Your task to perform on an android device: change your default location settings in chrome Image 0: 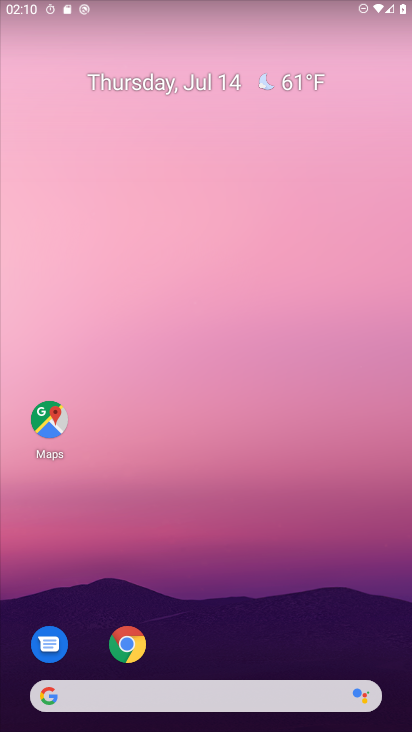
Step 0: drag from (253, 637) to (249, 218)
Your task to perform on an android device: change your default location settings in chrome Image 1: 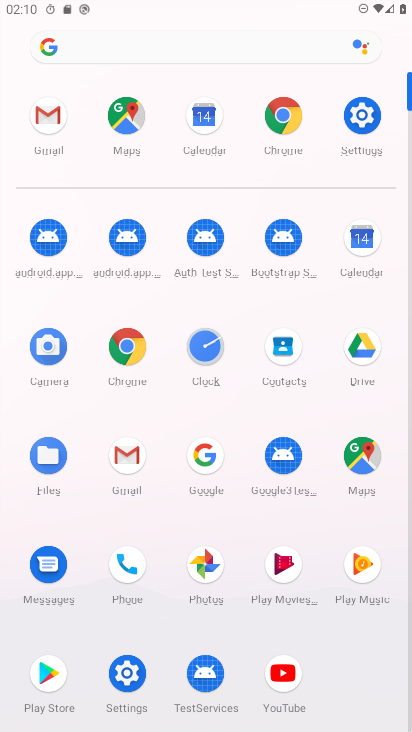
Step 1: click (124, 347)
Your task to perform on an android device: change your default location settings in chrome Image 2: 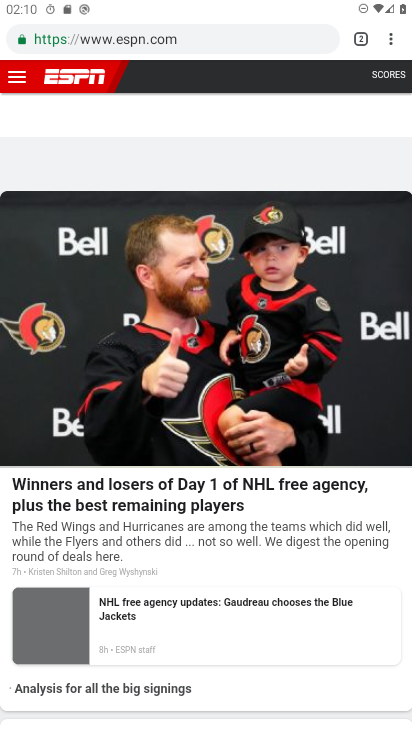
Step 2: drag from (392, 37) to (294, 465)
Your task to perform on an android device: change your default location settings in chrome Image 3: 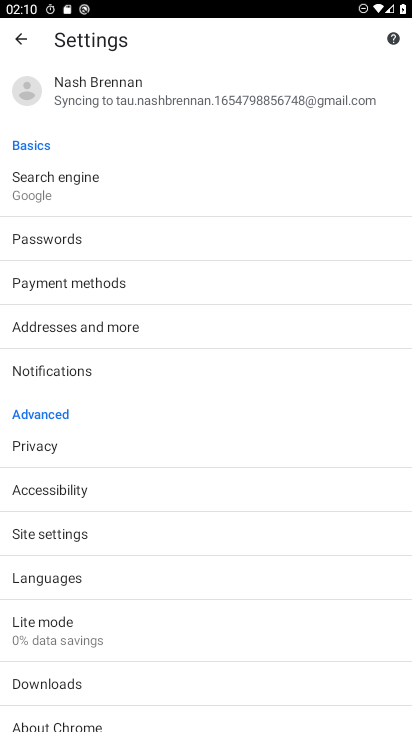
Step 3: drag from (208, 661) to (232, 427)
Your task to perform on an android device: change your default location settings in chrome Image 4: 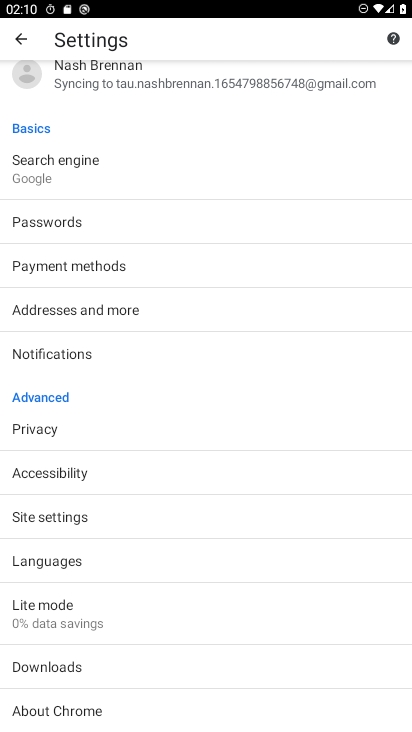
Step 4: click (71, 521)
Your task to perform on an android device: change your default location settings in chrome Image 5: 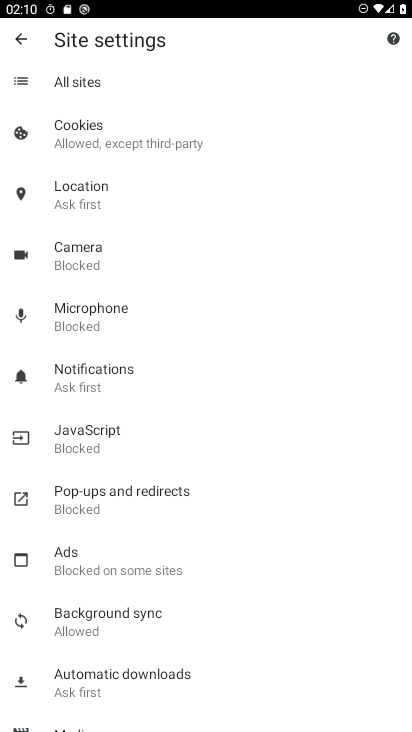
Step 5: click (96, 209)
Your task to perform on an android device: change your default location settings in chrome Image 6: 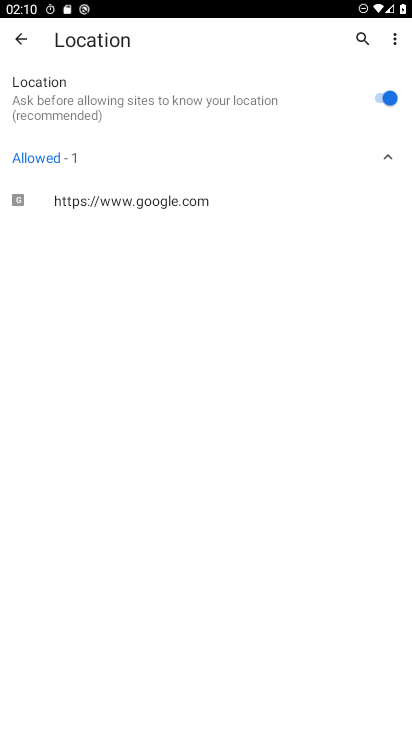
Step 6: click (363, 101)
Your task to perform on an android device: change your default location settings in chrome Image 7: 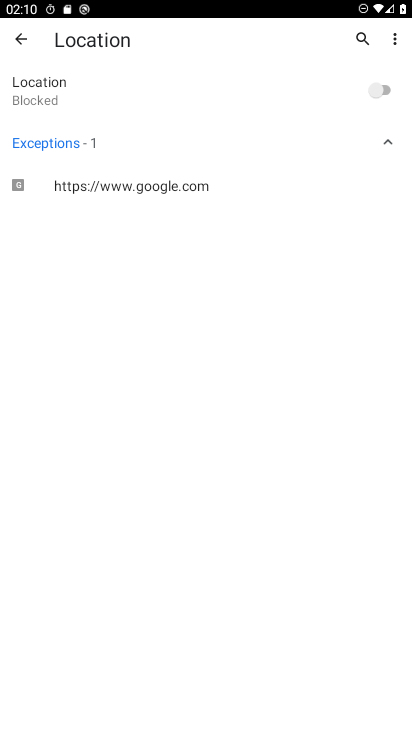
Step 7: task complete